Your task to perform on an android device: see creations saved in the google photos Image 0: 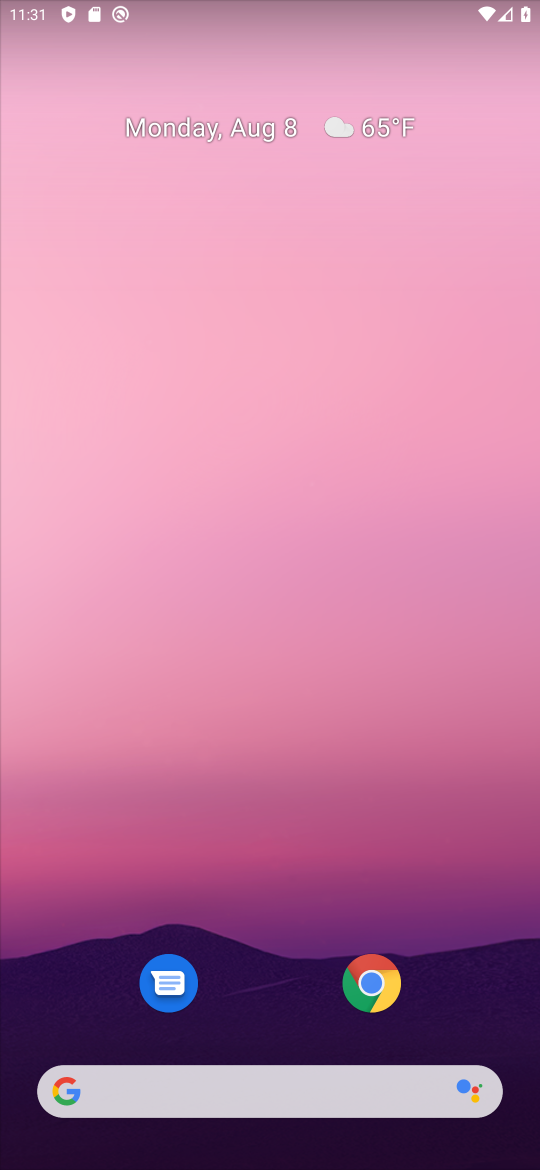
Step 0: click (379, 988)
Your task to perform on an android device: see creations saved in the google photos Image 1: 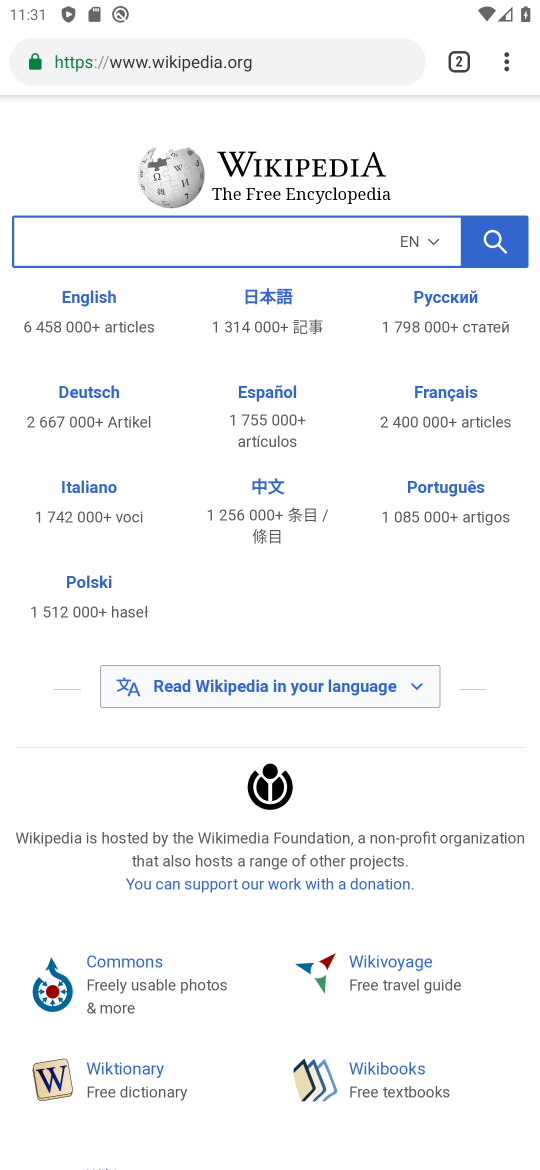
Step 1: press home button
Your task to perform on an android device: see creations saved in the google photos Image 2: 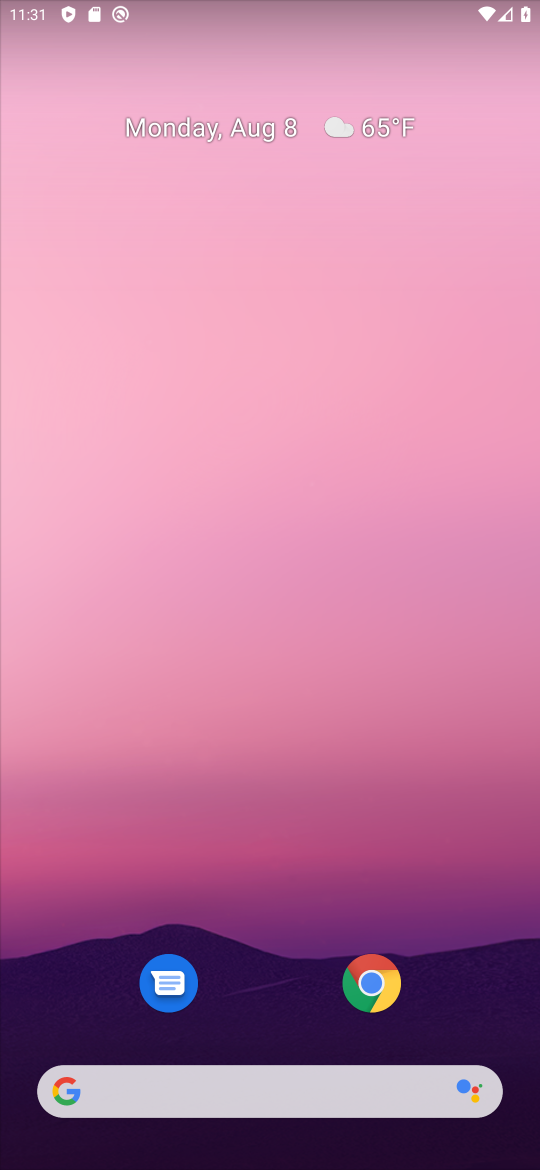
Step 2: drag from (263, 368) to (274, 41)
Your task to perform on an android device: see creations saved in the google photos Image 3: 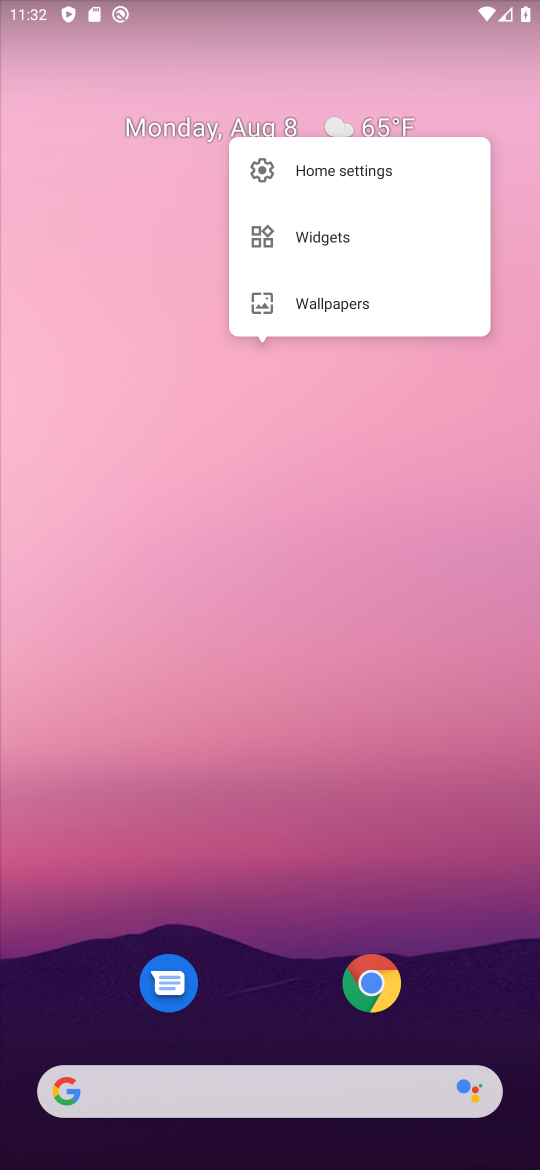
Step 3: click (281, 515)
Your task to perform on an android device: see creations saved in the google photos Image 4: 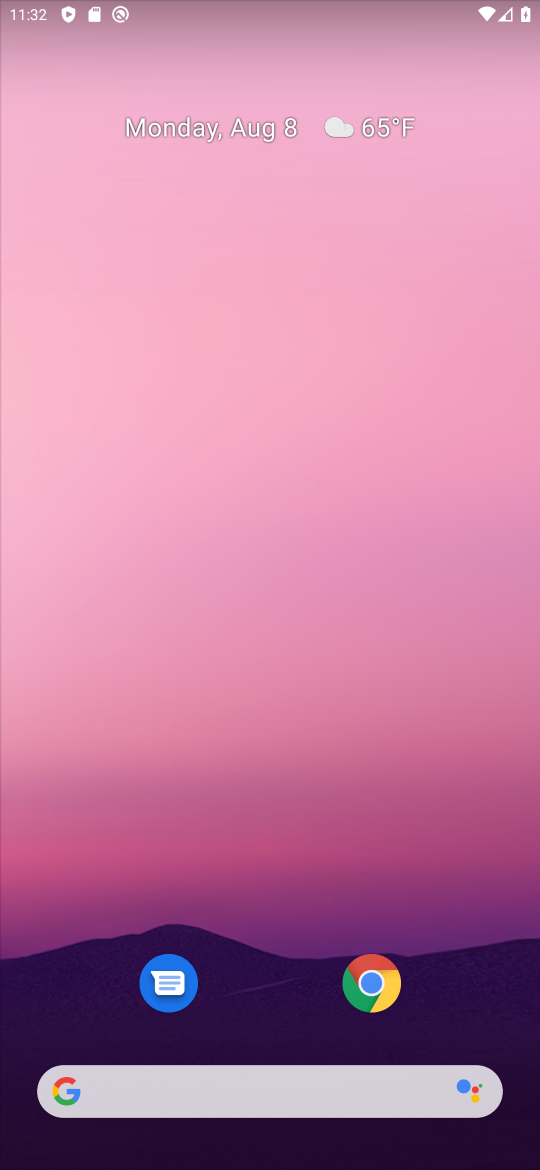
Step 4: drag from (286, 1053) to (283, 99)
Your task to perform on an android device: see creations saved in the google photos Image 5: 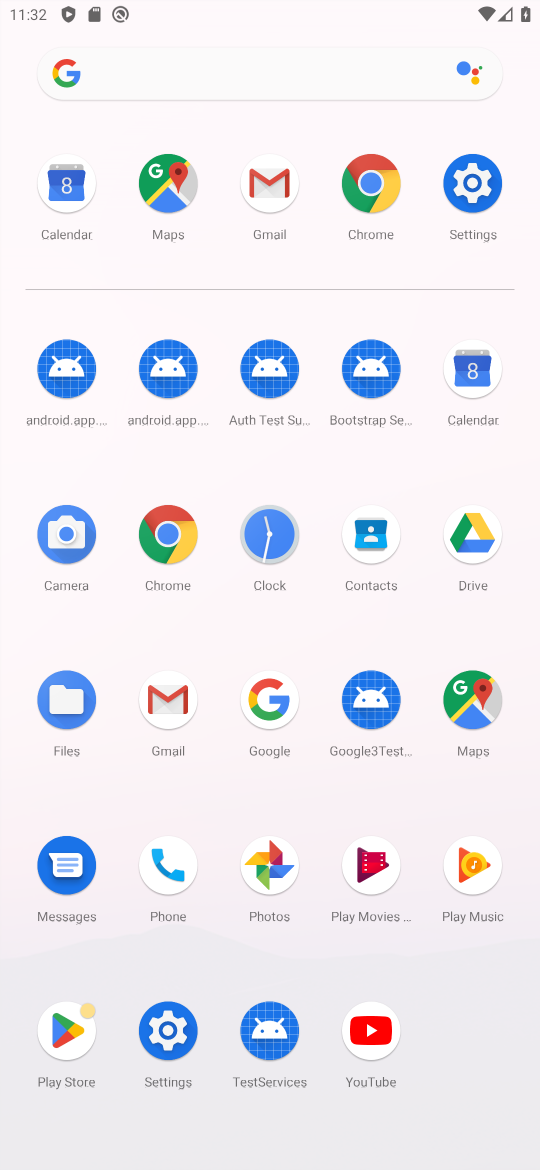
Step 5: click (289, 875)
Your task to perform on an android device: see creations saved in the google photos Image 6: 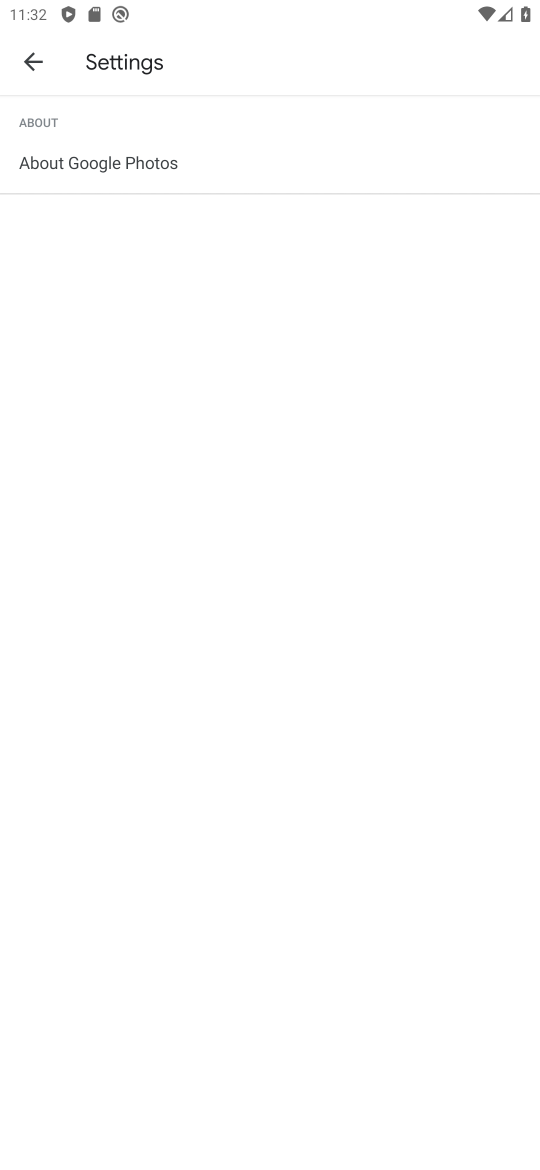
Step 6: task complete